Your task to perform on an android device: see creations saved in the google photos Image 0: 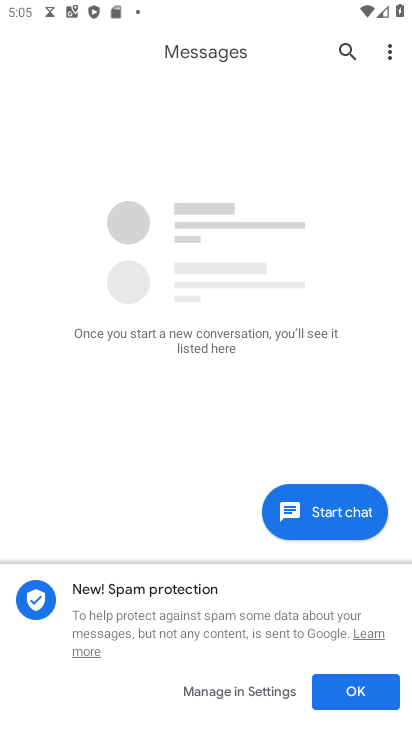
Step 0: press home button
Your task to perform on an android device: see creations saved in the google photos Image 1: 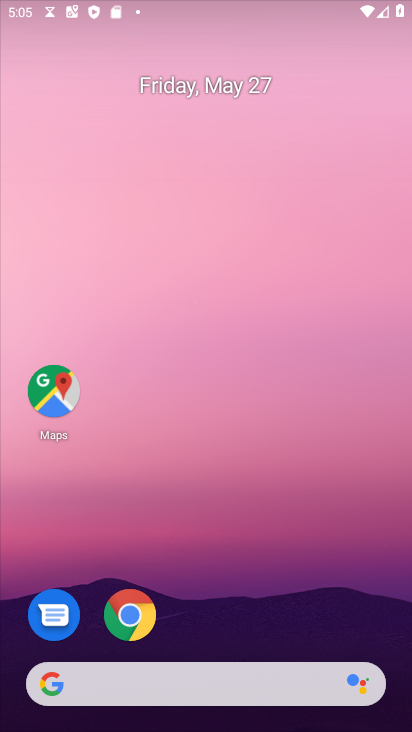
Step 1: drag from (313, 505) to (182, 32)
Your task to perform on an android device: see creations saved in the google photos Image 2: 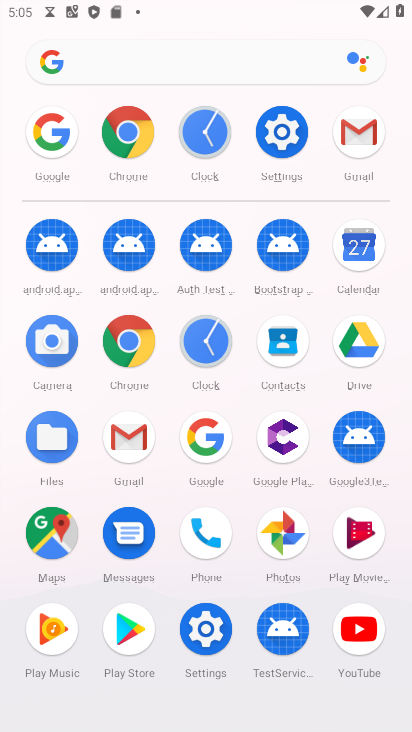
Step 2: click (290, 520)
Your task to perform on an android device: see creations saved in the google photos Image 3: 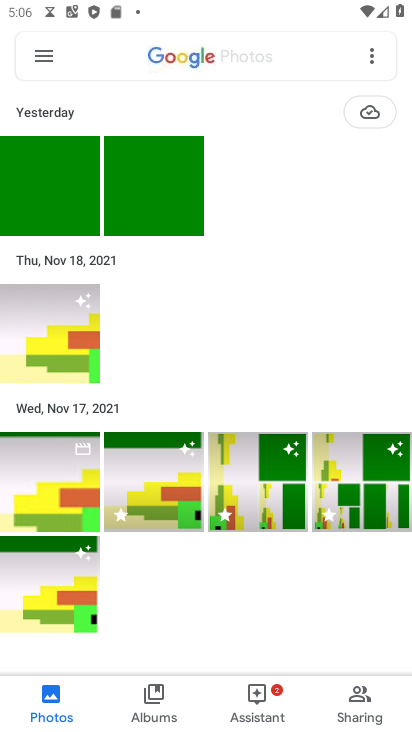
Step 3: click (180, 51)
Your task to perform on an android device: see creations saved in the google photos Image 4: 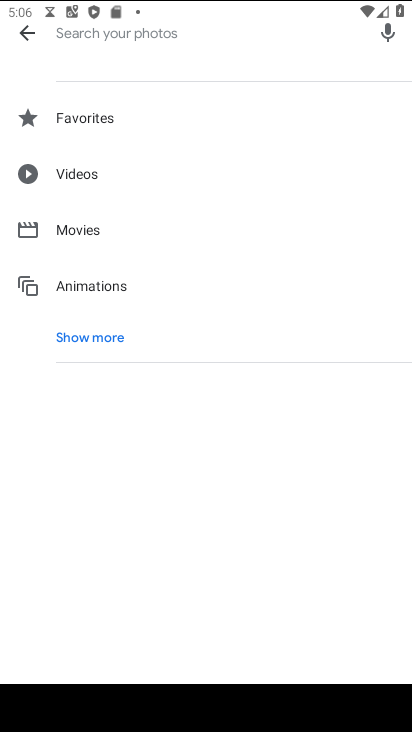
Step 4: type "creations"
Your task to perform on an android device: see creations saved in the google photos Image 5: 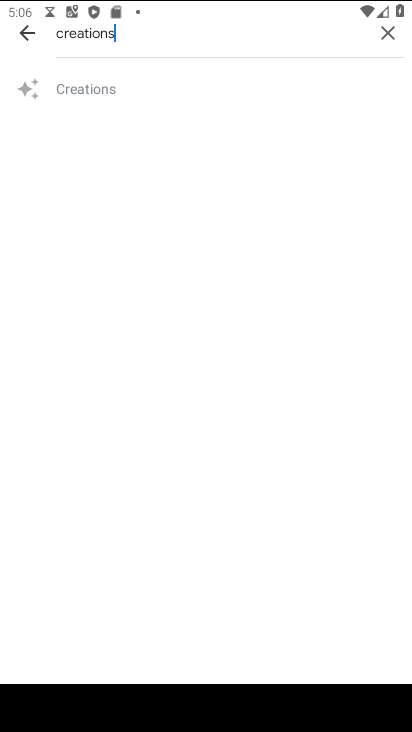
Step 5: click (114, 99)
Your task to perform on an android device: see creations saved in the google photos Image 6: 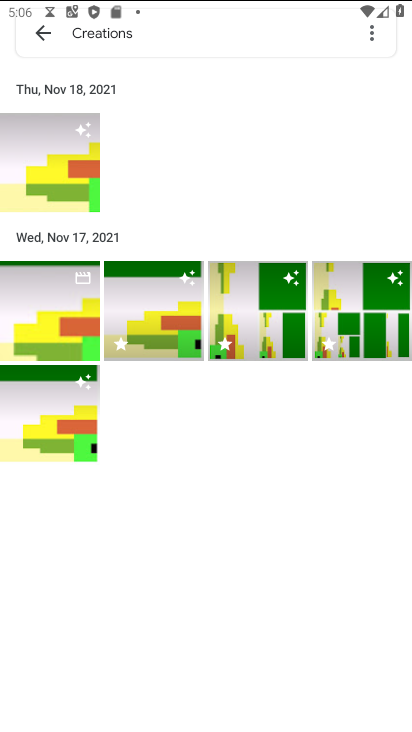
Step 6: task complete